Your task to perform on an android device: Go to Reddit.com Image 0: 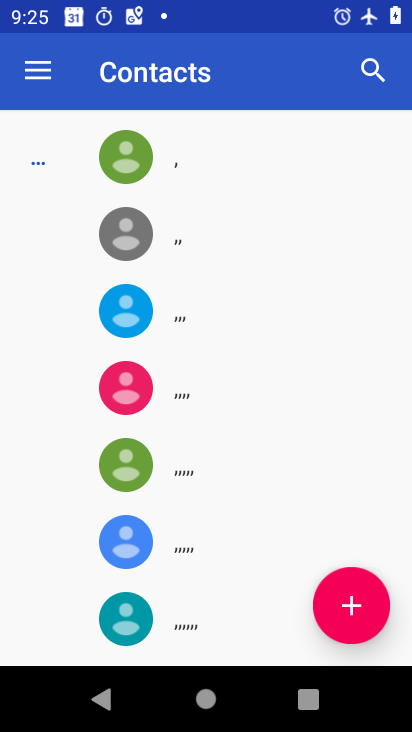
Step 0: press home button
Your task to perform on an android device: Go to Reddit.com Image 1: 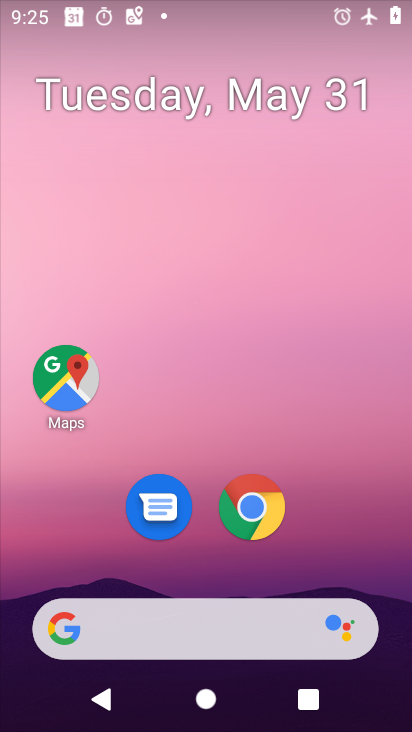
Step 1: click (259, 507)
Your task to perform on an android device: Go to Reddit.com Image 2: 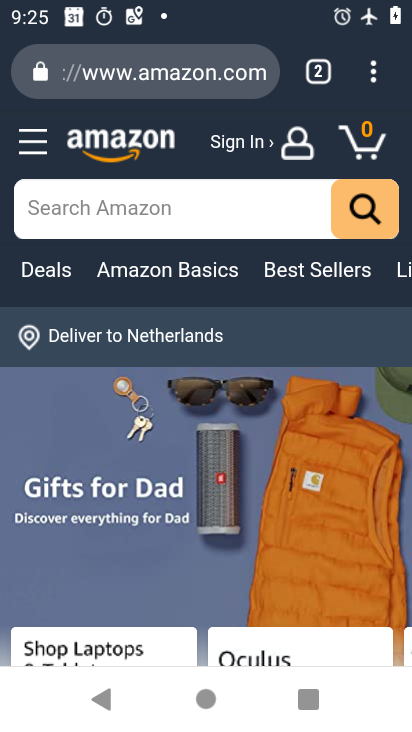
Step 2: click (196, 81)
Your task to perform on an android device: Go to Reddit.com Image 3: 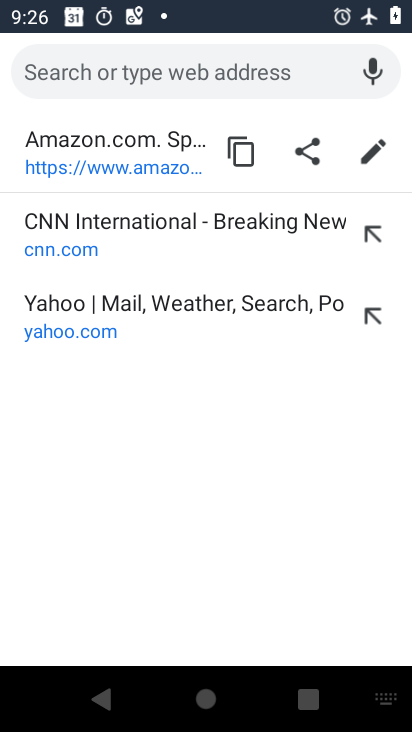
Step 3: type "Reddit.com"
Your task to perform on an android device: Go to Reddit.com Image 4: 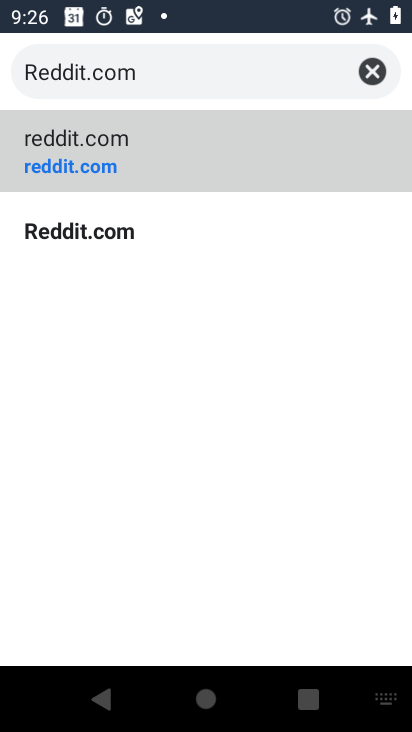
Step 4: click (152, 161)
Your task to perform on an android device: Go to Reddit.com Image 5: 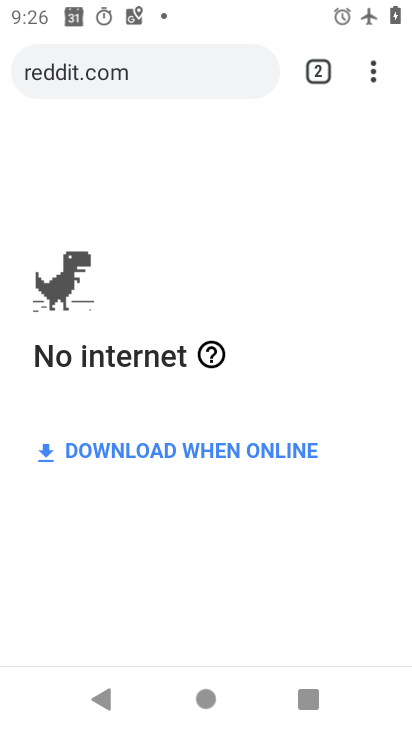
Step 5: task complete